Your task to perform on an android device: turn on notifications settings in the gmail app Image 0: 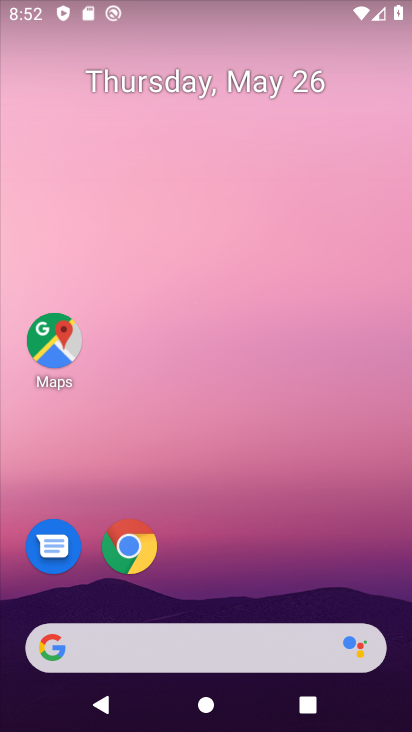
Step 0: drag from (256, 589) to (198, 45)
Your task to perform on an android device: turn on notifications settings in the gmail app Image 1: 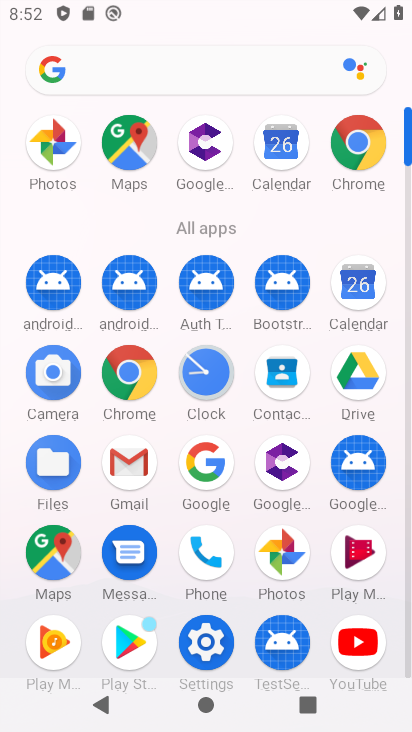
Step 1: click (135, 464)
Your task to perform on an android device: turn on notifications settings in the gmail app Image 2: 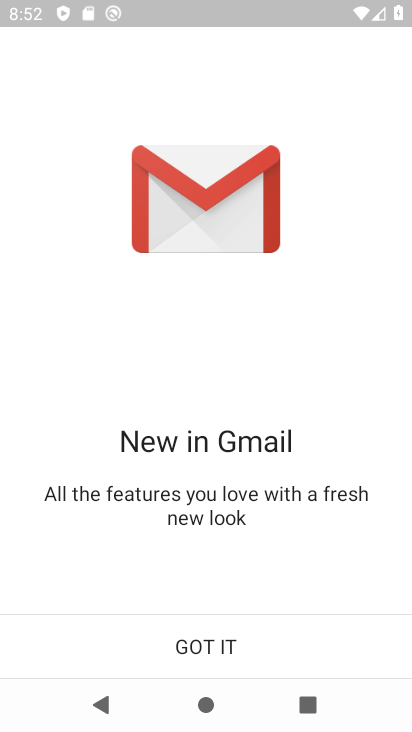
Step 2: click (203, 661)
Your task to perform on an android device: turn on notifications settings in the gmail app Image 3: 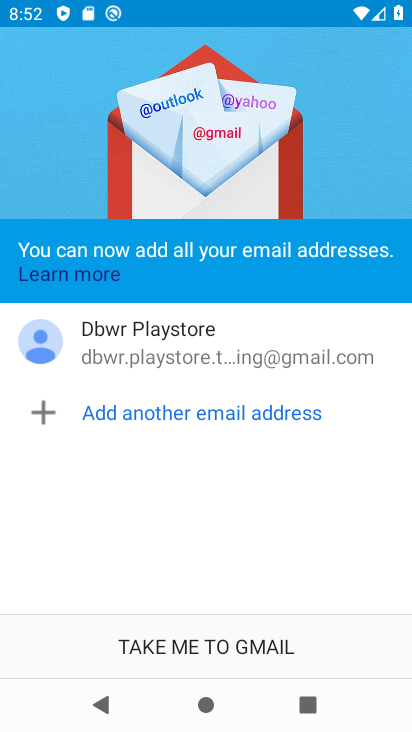
Step 3: click (203, 661)
Your task to perform on an android device: turn on notifications settings in the gmail app Image 4: 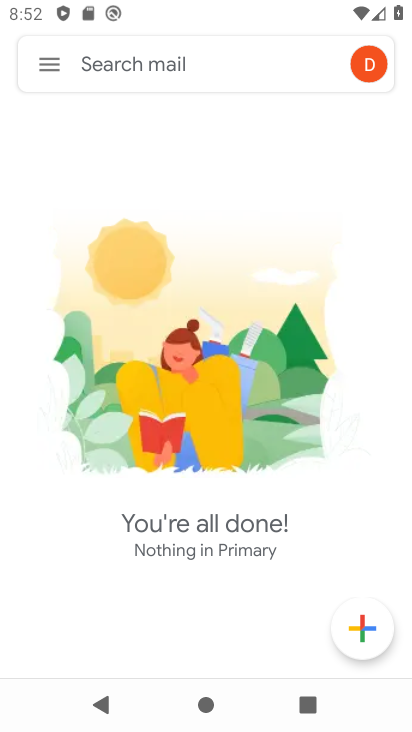
Step 4: click (51, 77)
Your task to perform on an android device: turn on notifications settings in the gmail app Image 5: 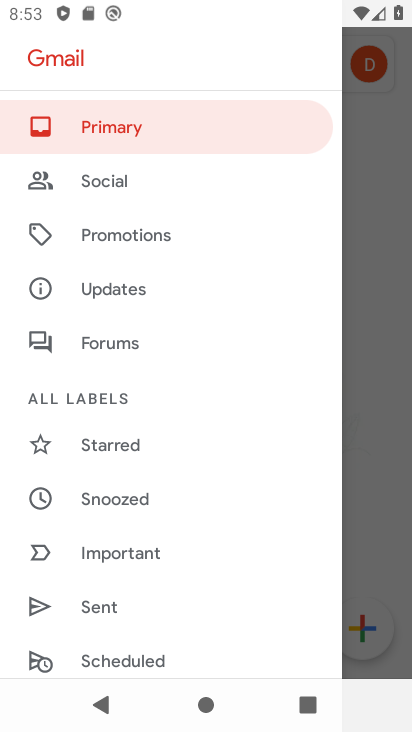
Step 5: drag from (118, 626) to (106, 132)
Your task to perform on an android device: turn on notifications settings in the gmail app Image 6: 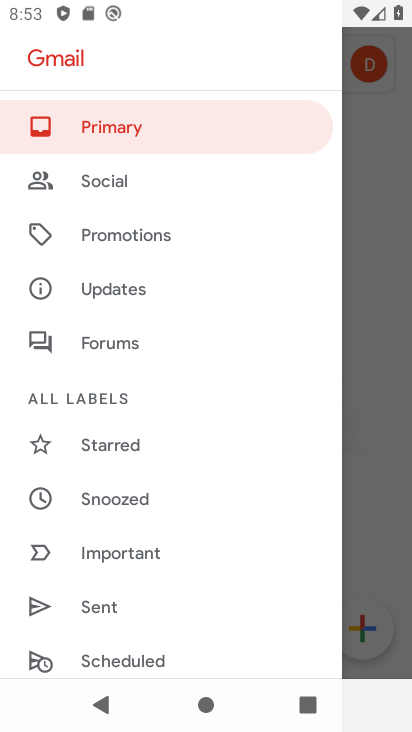
Step 6: drag from (149, 609) to (137, 284)
Your task to perform on an android device: turn on notifications settings in the gmail app Image 7: 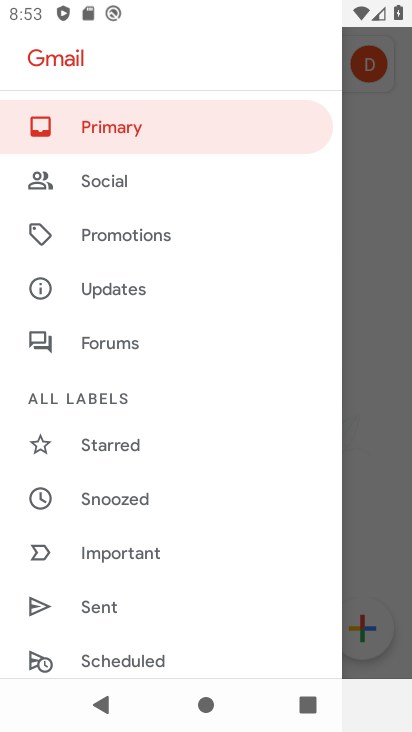
Step 7: drag from (94, 647) to (78, 2)
Your task to perform on an android device: turn on notifications settings in the gmail app Image 8: 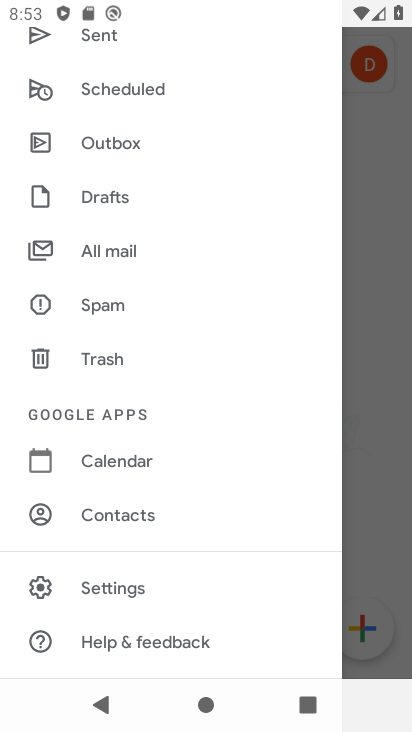
Step 8: click (106, 590)
Your task to perform on an android device: turn on notifications settings in the gmail app Image 9: 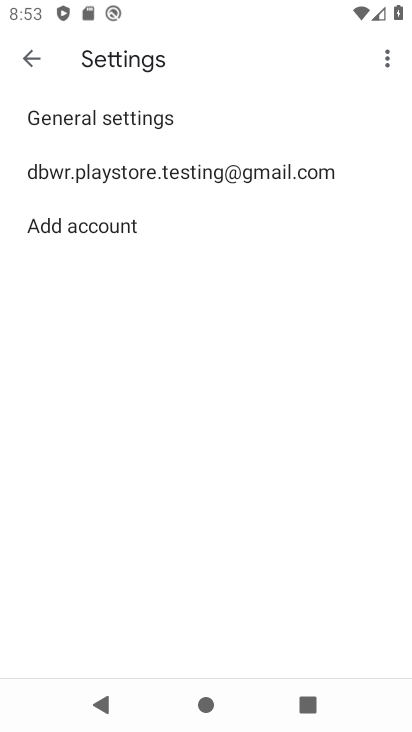
Step 9: click (269, 175)
Your task to perform on an android device: turn on notifications settings in the gmail app Image 10: 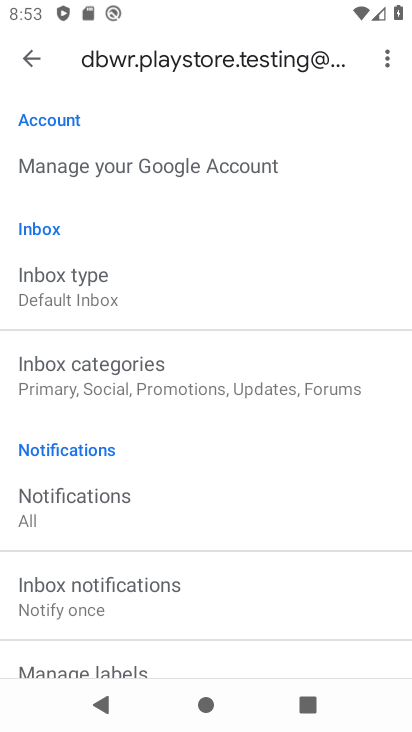
Step 10: drag from (150, 646) to (150, 277)
Your task to perform on an android device: turn on notifications settings in the gmail app Image 11: 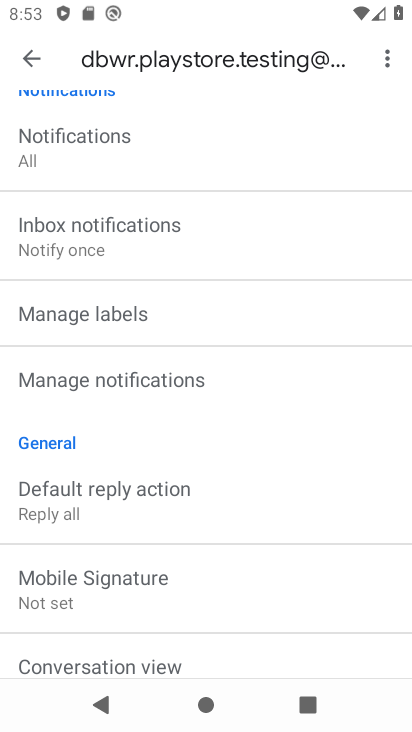
Step 11: click (132, 395)
Your task to perform on an android device: turn on notifications settings in the gmail app Image 12: 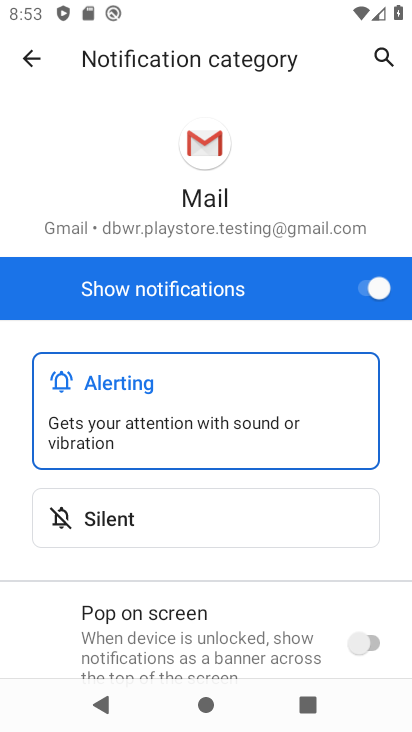
Step 12: drag from (186, 569) to (156, 357)
Your task to perform on an android device: turn on notifications settings in the gmail app Image 13: 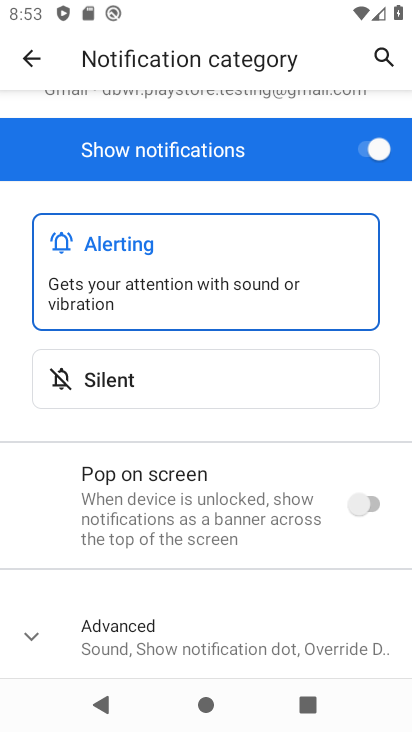
Step 13: click (343, 505)
Your task to perform on an android device: turn on notifications settings in the gmail app Image 14: 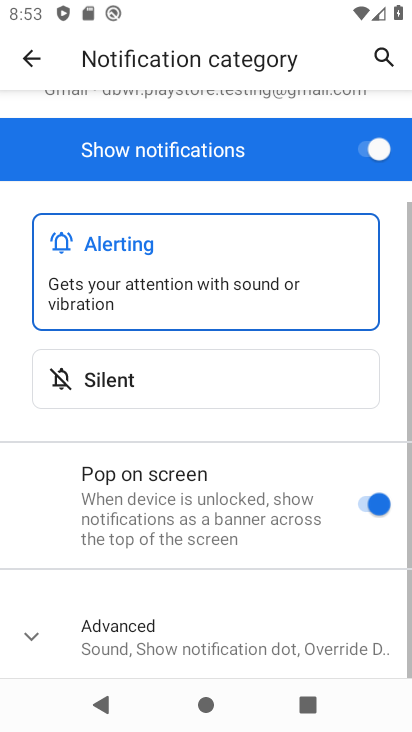
Step 14: drag from (236, 603) to (202, 326)
Your task to perform on an android device: turn on notifications settings in the gmail app Image 15: 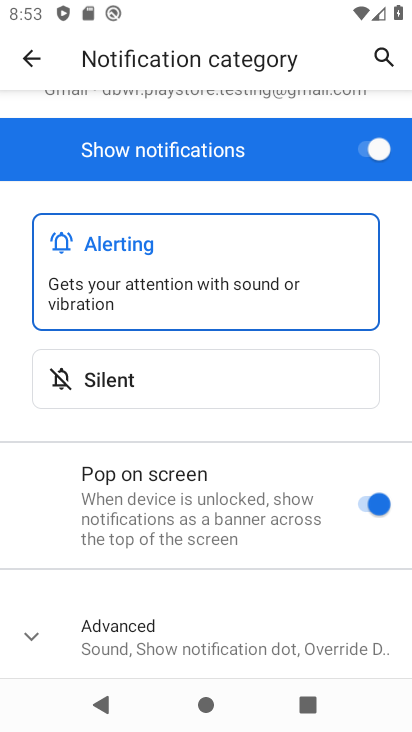
Step 15: click (157, 622)
Your task to perform on an android device: turn on notifications settings in the gmail app Image 16: 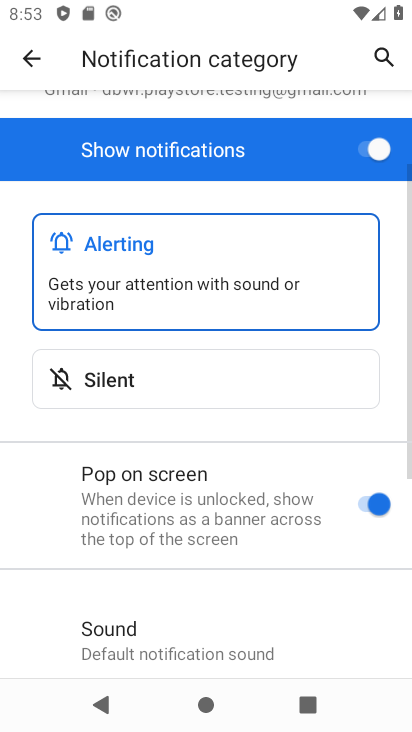
Step 16: drag from (178, 579) to (157, 273)
Your task to perform on an android device: turn on notifications settings in the gmail app Image 17: 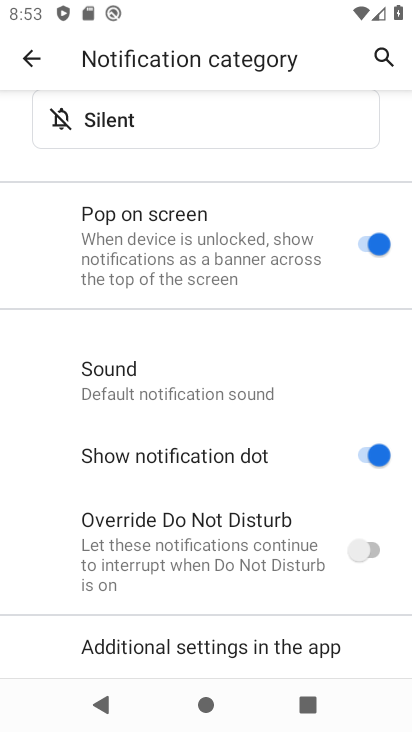
Step 17: click (361, 554)
Your task to perform on an android device: turn on notifications settings in the gmail app Image 18: 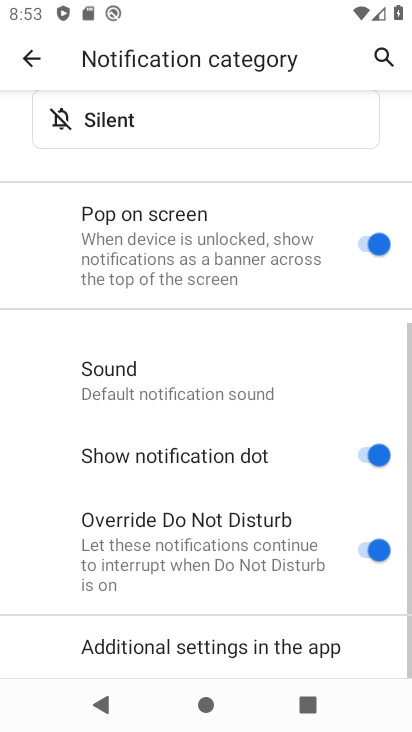
Step 18: task complete